Your task to perform on an android device: Show the shopping cart on costco. Search for dell alienware on costco, select the first entry, and add it to the cart. Image 0: 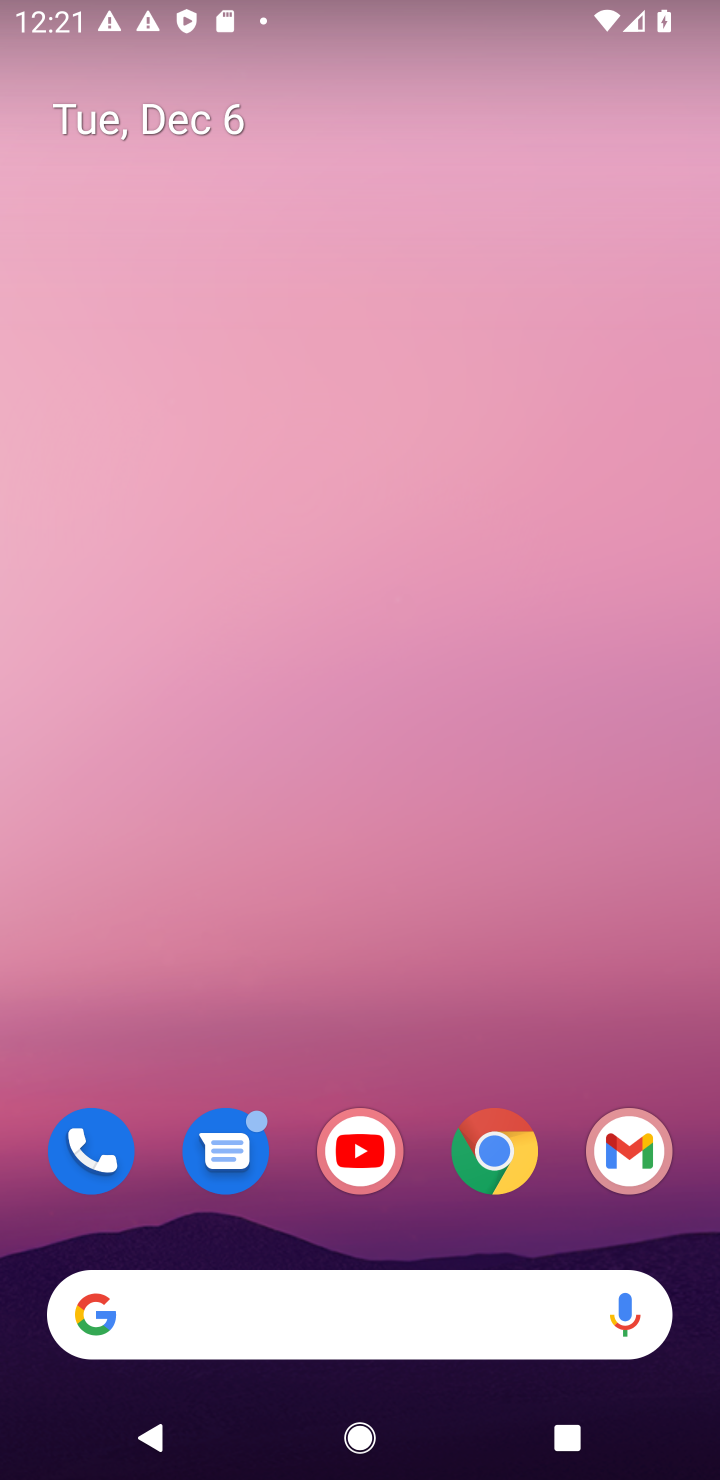
Step 0: click (488, 1160)
Your task to perform on an android device: Show the shopping cart on costco. Search for dell alienware on costco, select the first entry, and add it to the cart. Image 1: 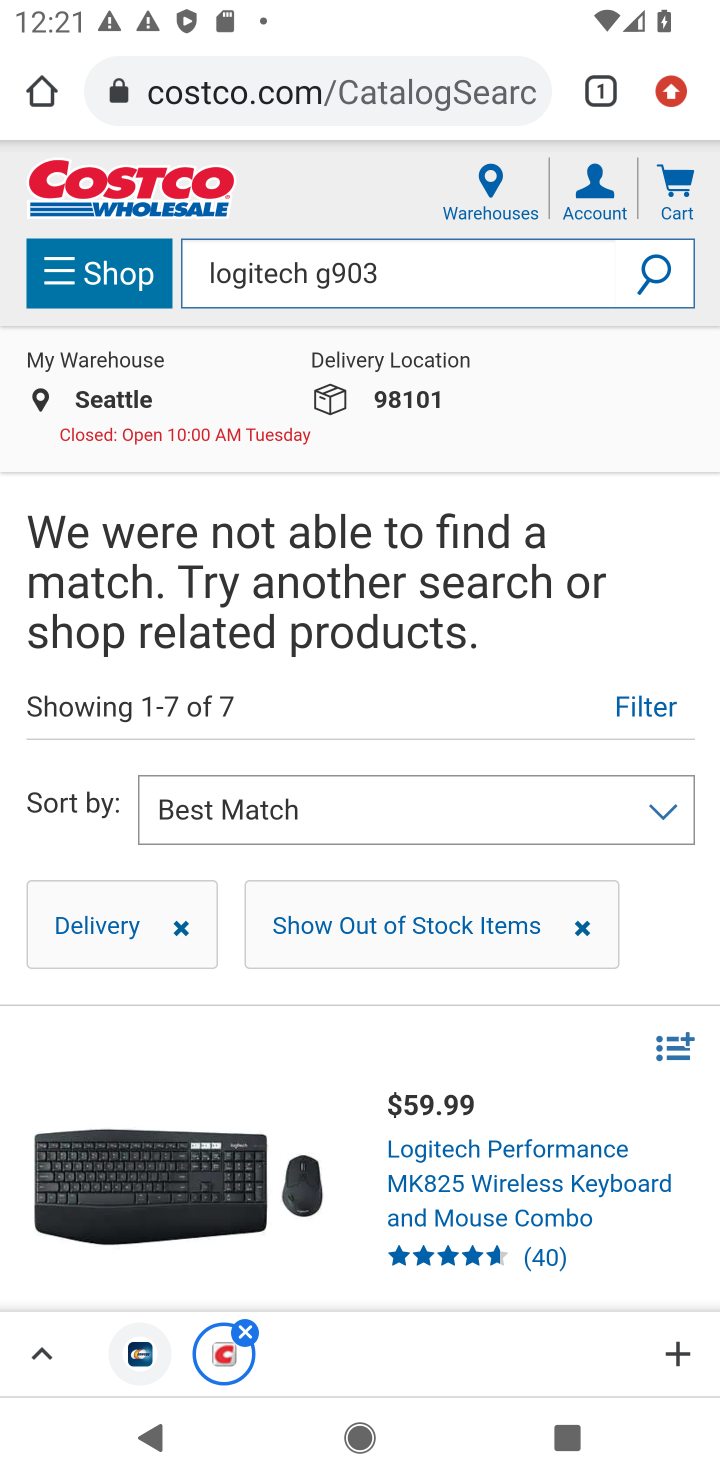
Step 1: click (688, 192)
Your task to perform on an android device: Show the shopping cart on costco. Search for dell alienware on costco, select the first entry, and add it to the cart. Image 2: 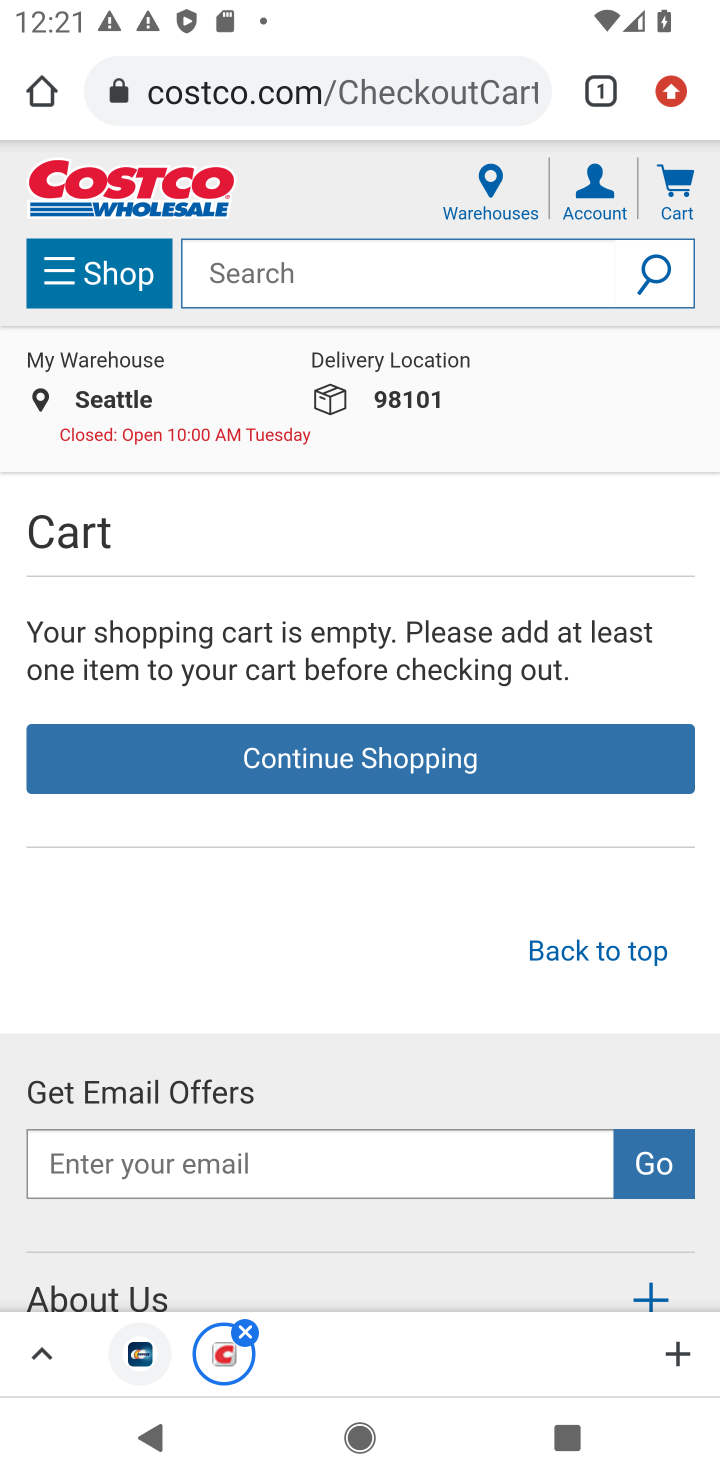
Step 2: click (240, 279)
Your task to perform on an android device: Show the shopping cart on costco. Search for dell alienware on costco, select the first entry, and add it to the cart. Image 3: 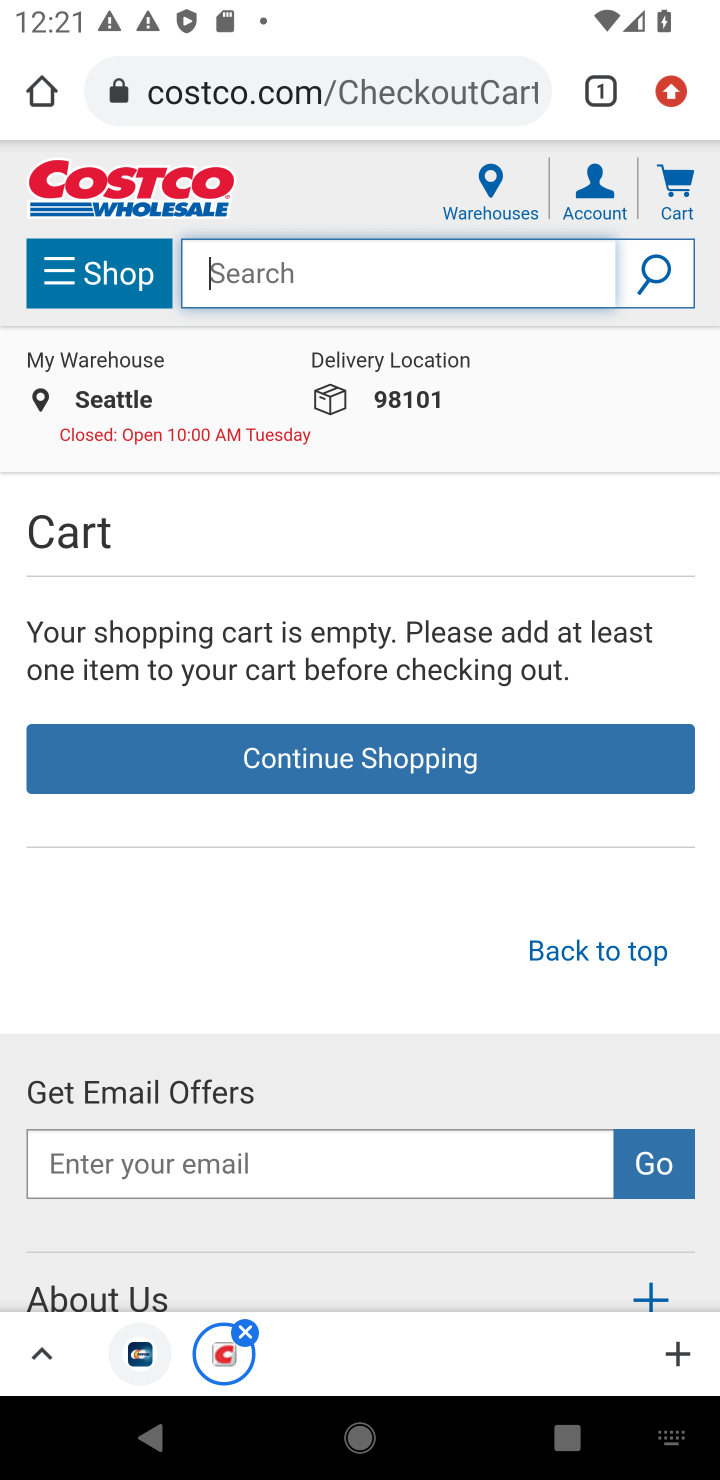
Step 3: type "dell alienware"
Your task to perform on an android device: Show the shopping cart on costco. Search for dell alienware on costco, select the first entry, and add it to the cart. Image 4: 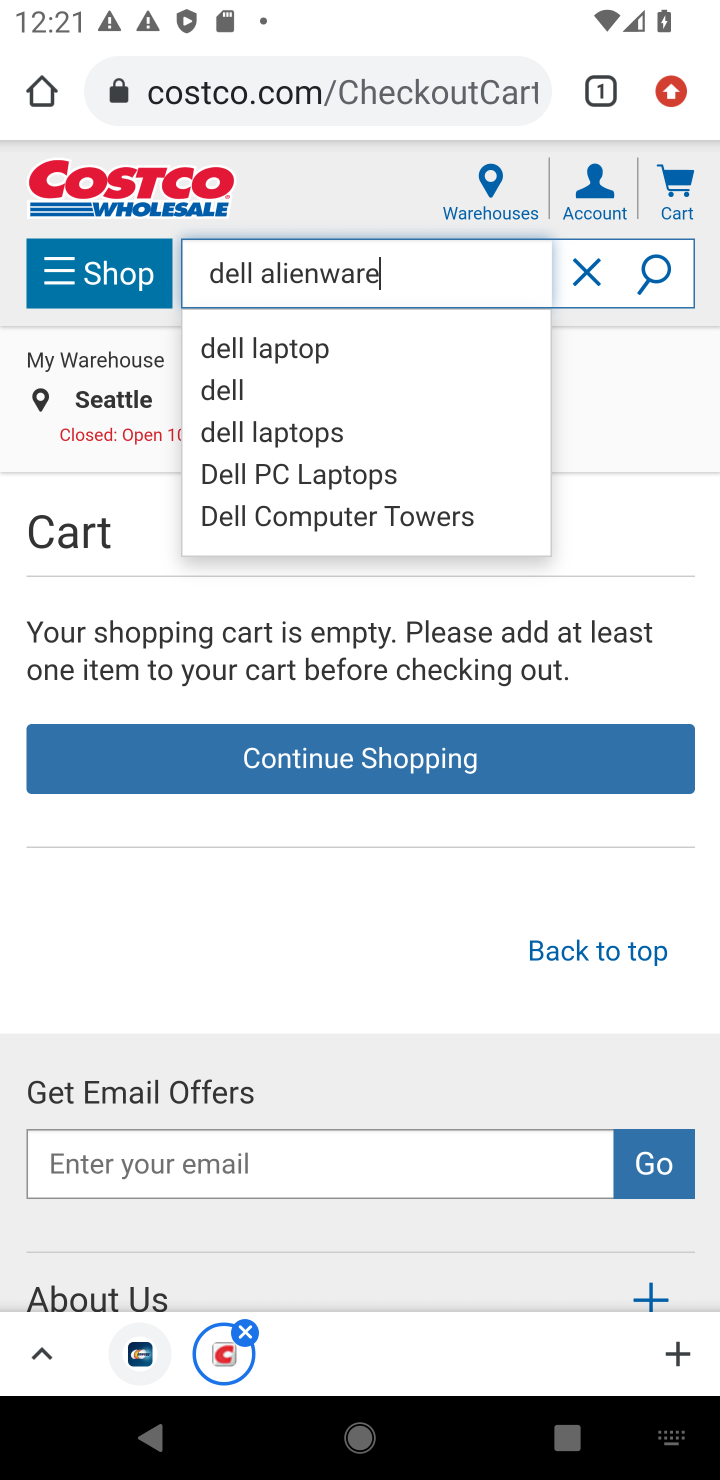
Step 4: click (641, 288)
Your task to perform on an android device: Show the shopping cart on costco. Search for dell alienware on costco, select the first entry, and add it to the cart. Image 5: 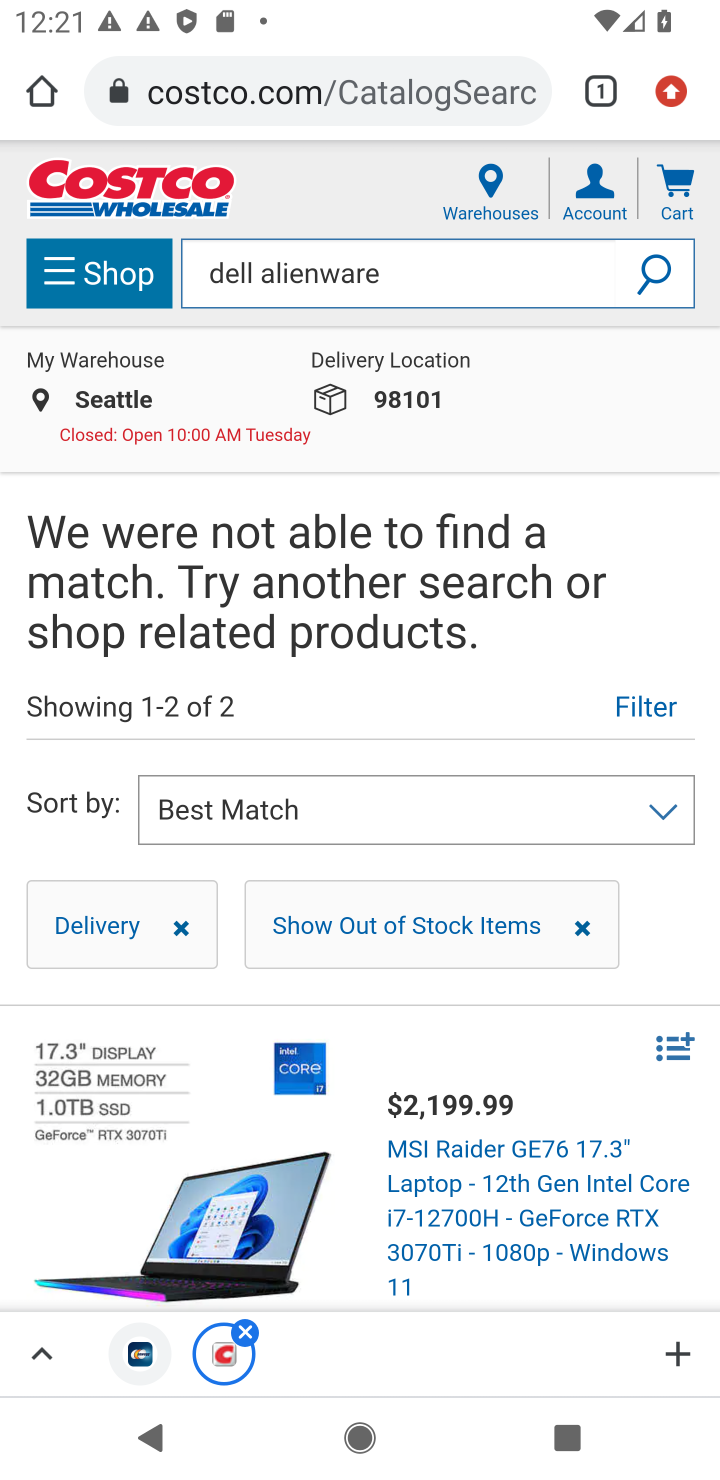
Step 5: task complete